Your task to perform on an android device: Go to Amazon Image 0: 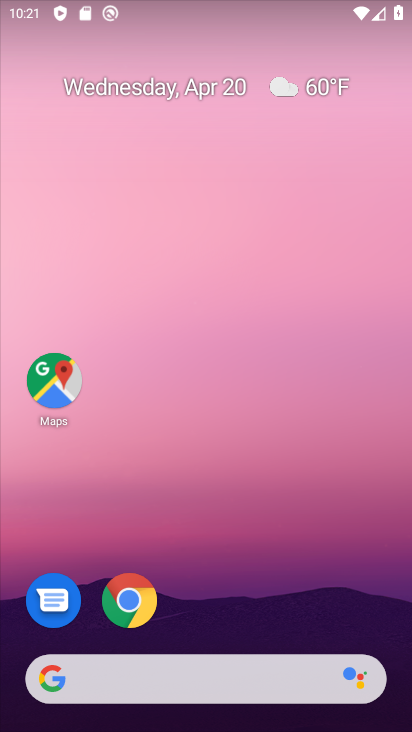
Step 0: click (131, 612)
Your task to perform on an android device: Go to Amazon Image 1: 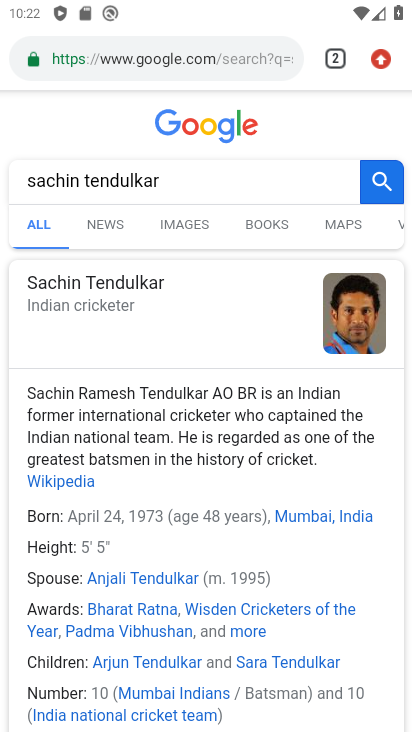
Step 1: click (333, 59)
Your task to perform on an android device: Go to Amazon Image 2: 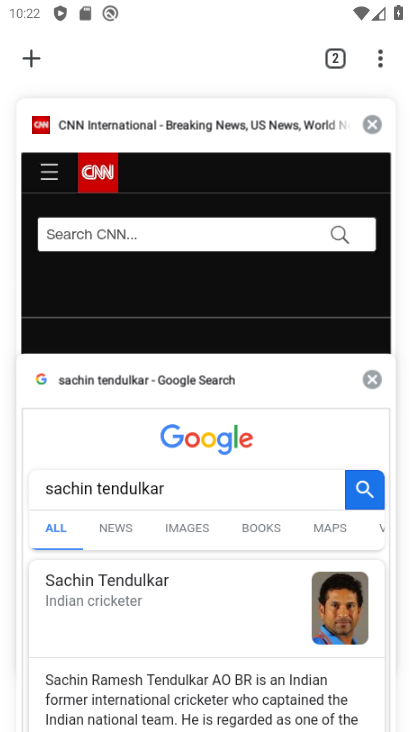
Step 2: click (35, 60)
Your task to perform on an android device: Go to Amazon Image 3: 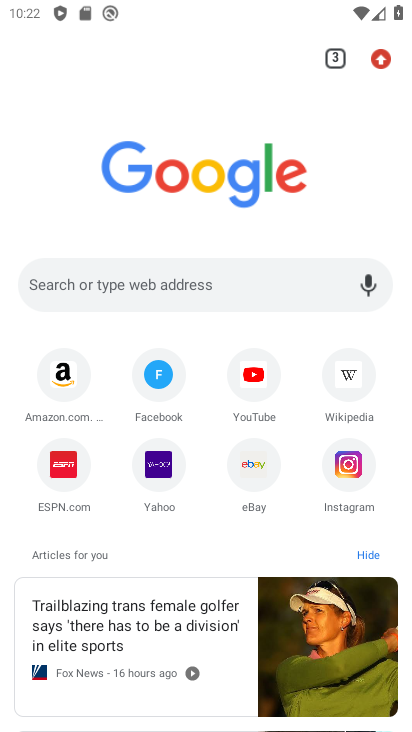
Step 3: click (69, 390)
Your task to perform on an android device: Go to Amazon Image 4: 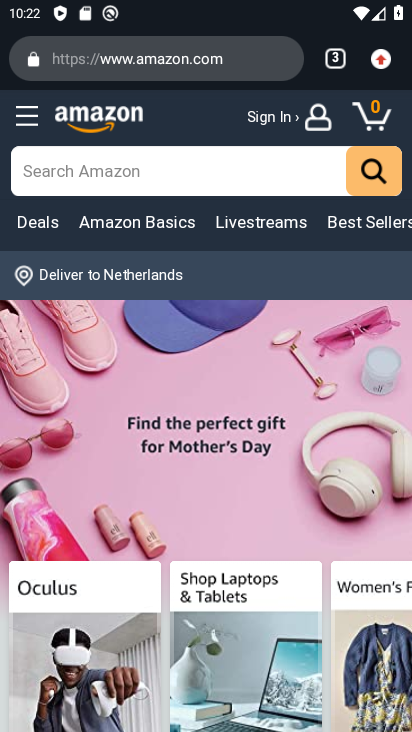
Step 4: task complete